Your task to perform on an android device: Go to ESPN.com Image 0: 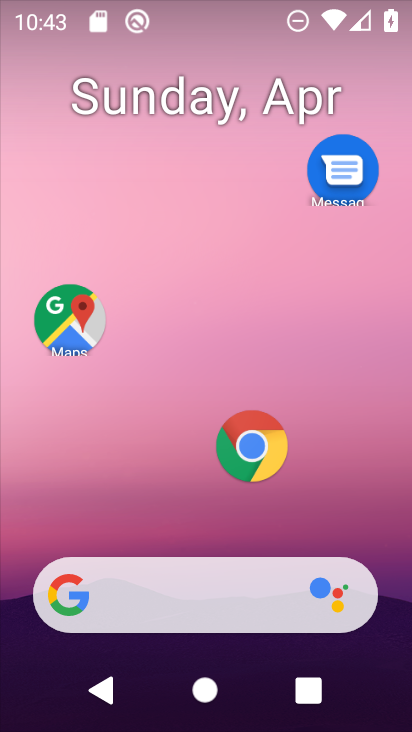
Step 0: drag from (210, 477) to (230, 82)
Your task to perform on an android device: Go to ESPN.com Image 1: 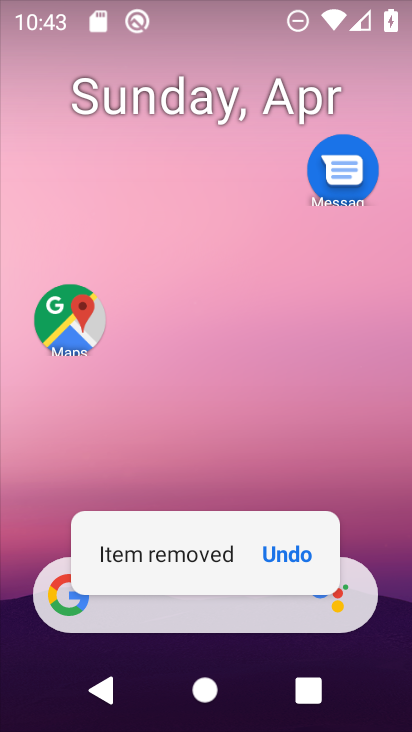
Step 1: drag from (197, 444) to (251, 166)
Your task to perform on an android device: Go to ESPN.com Image 2: 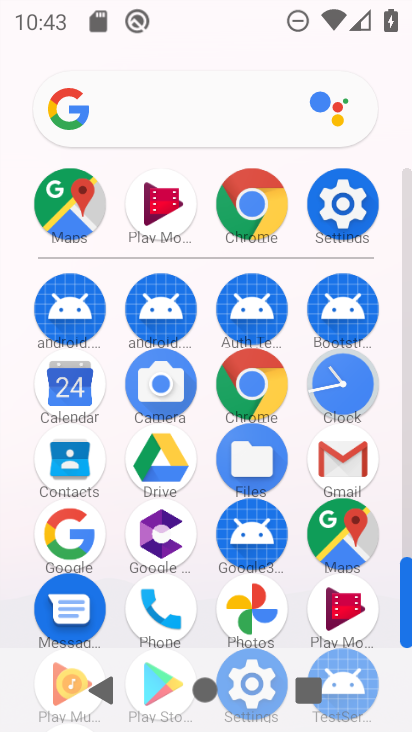
Step 2: click (72, 535)
Your task to perform on an android device: Go to ESPN.com Image 3: 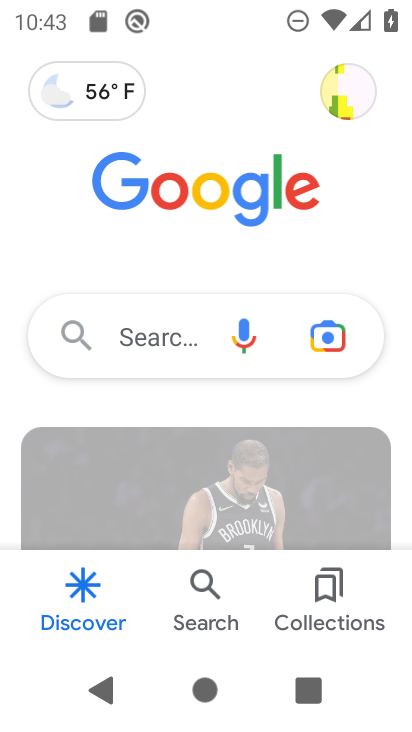
Step 3: click (126, 347)
Your task to perform on an android device: Go to ESPN.com Image 4: 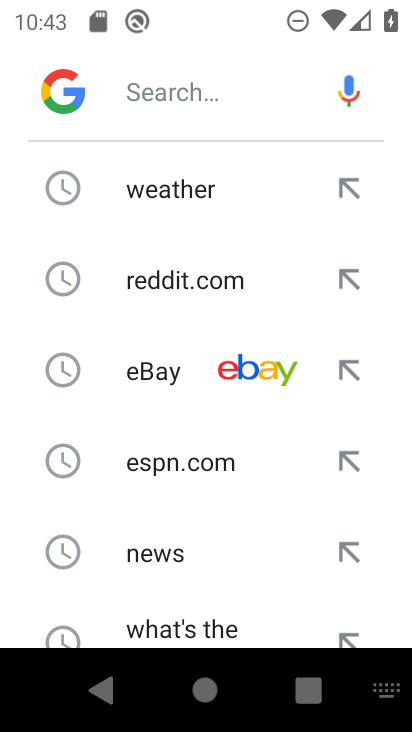
Step 4: click (172, 447)
Your task to perform on an android device: Go to ESPN.com Image 5: 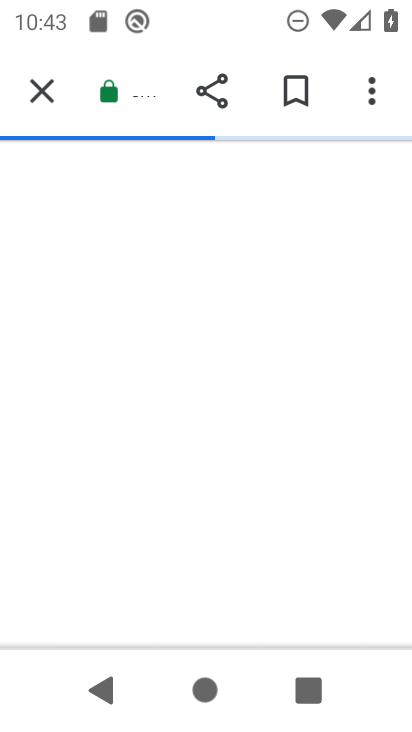
Step 5: task complete